Your task to perform on an android device: Open calendar and show me the first week of next month Image 0: 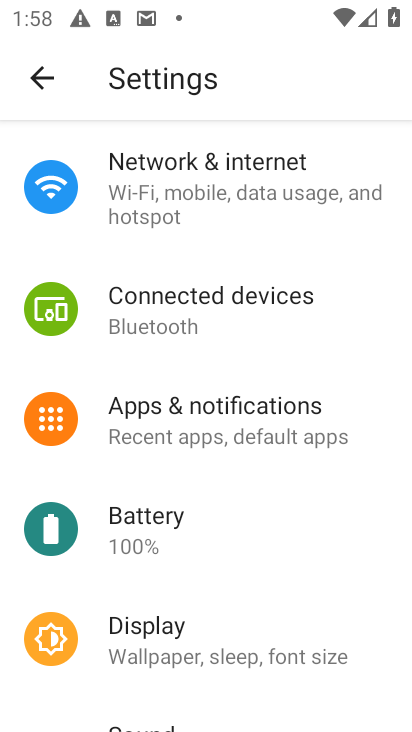
Step 0: press home button
Your task to perform on an android device: Open calendar and show me the first week of next month Image 1: 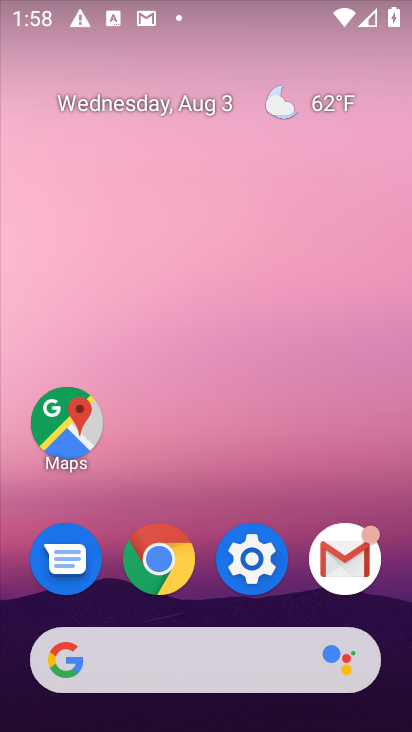
Step 1: drag from (289, 704) to (306, 165)
Your task to perform on an android device: Open calendar and show me the first week of next month Image 2: 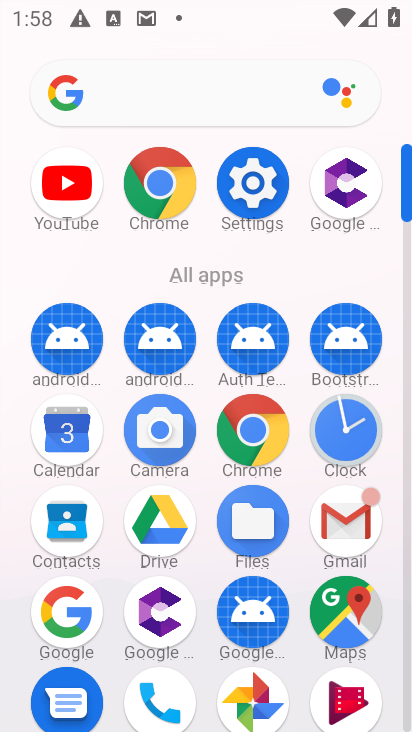
Step 2: click (71, 439)
Your task to perform on an android device: Open calendar and show me the first week of next month Image 3: 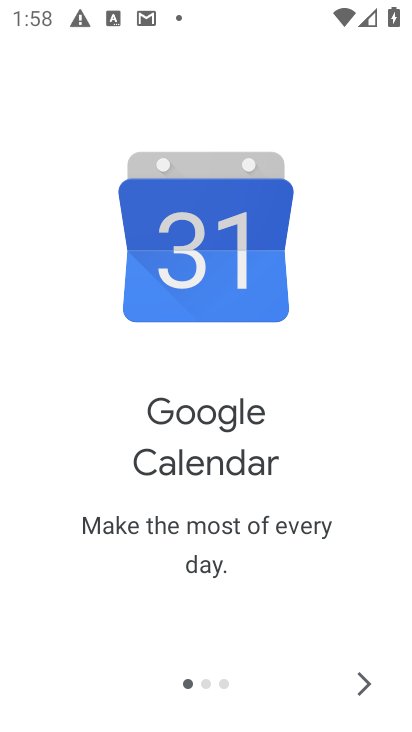
Step 3: click (374, 702)
Your task to perform on an android device: Open calendar and show me the first week of next month Image 4: 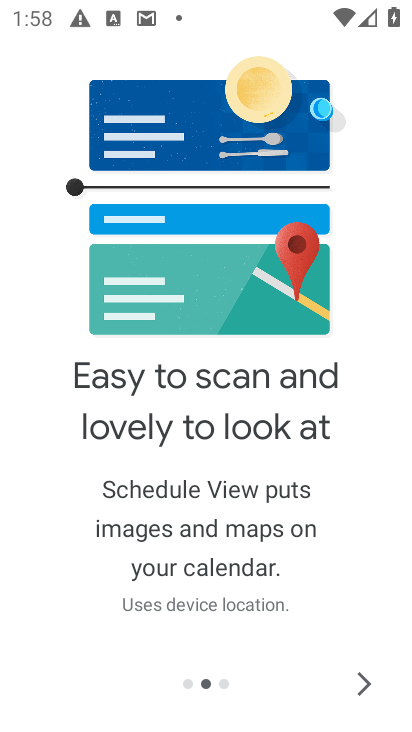
Step 4: click (355, 684)
Your task to perform on an android device: Open calendar and show me the first week of next month Image 5: 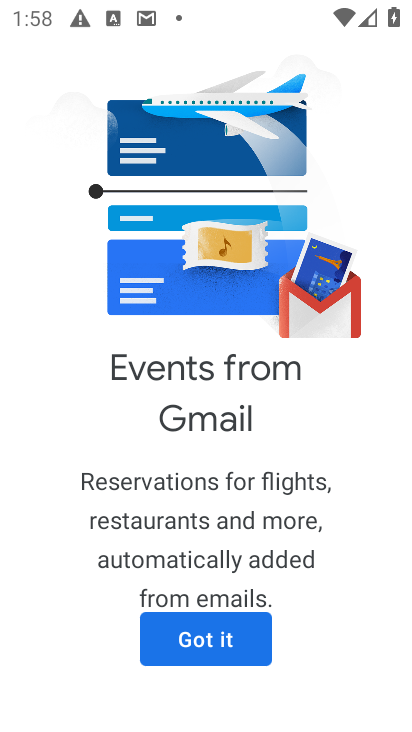
Step 5: click (247, 641)
Your task to perform on an android device: Open calendar and show me the first week of next month Image 6: 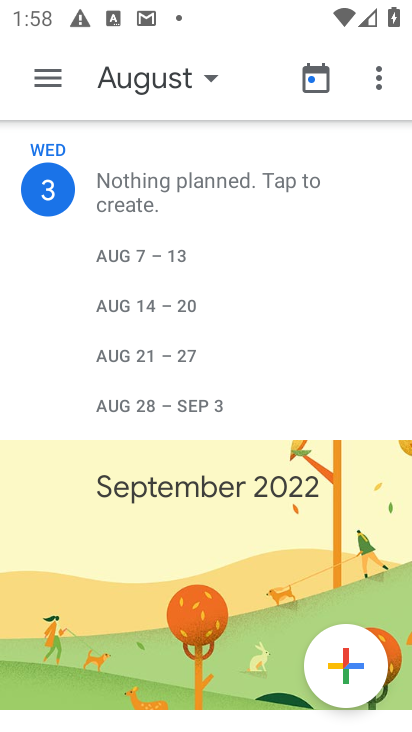
Step 6: click (51, 86)
Your task to perform on an android device: Open calendar and show me the first week of next month Image 7: 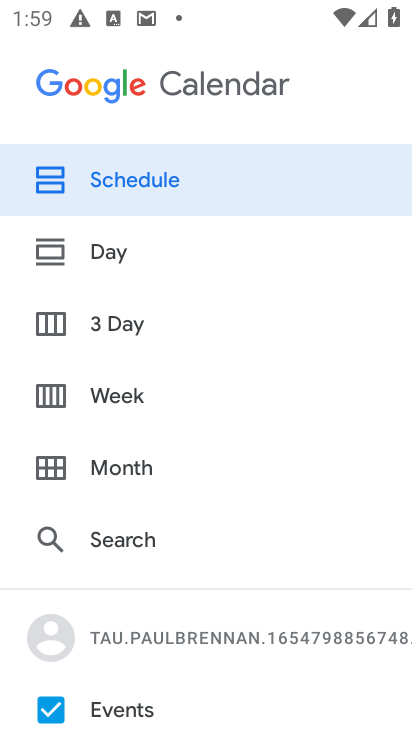
Step 7: click (156, 467)
Your task to perform on an android device: Open calendar and show me the first week of next month Image 8: 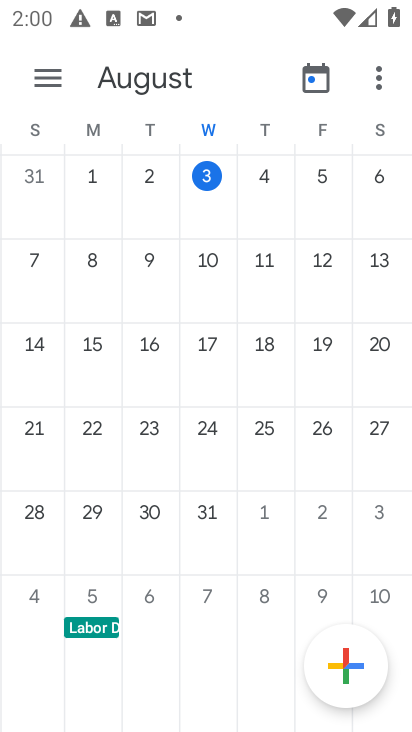
Step 8: drag from (372, 417) to (24, 444)
Your task to perform on an android device: Open calendar and show me the first week of next month Image 9: 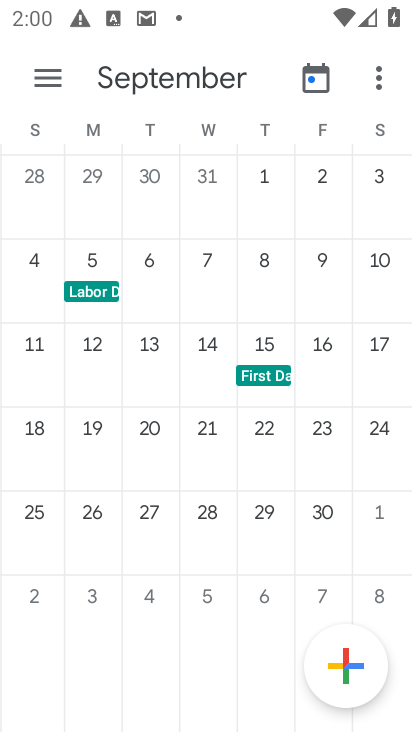
Step 9: click (93, 277)
Your task to perform on an android device: Open calendar and show me the first week of next month Image 10: 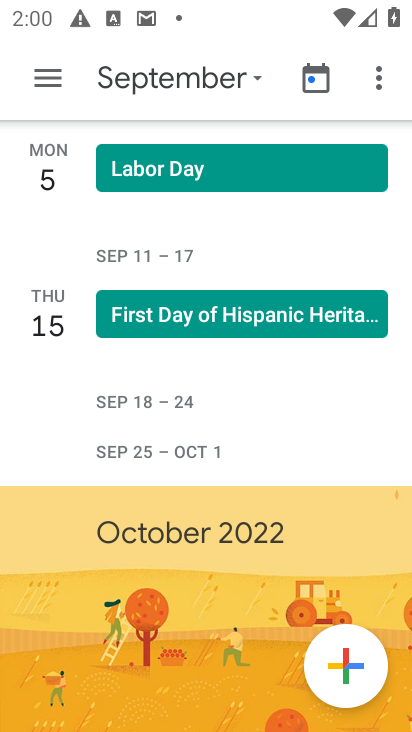
Step 10: task complete